Your task to perform on an android device: choose inbox layout in the gmail app Image 0: 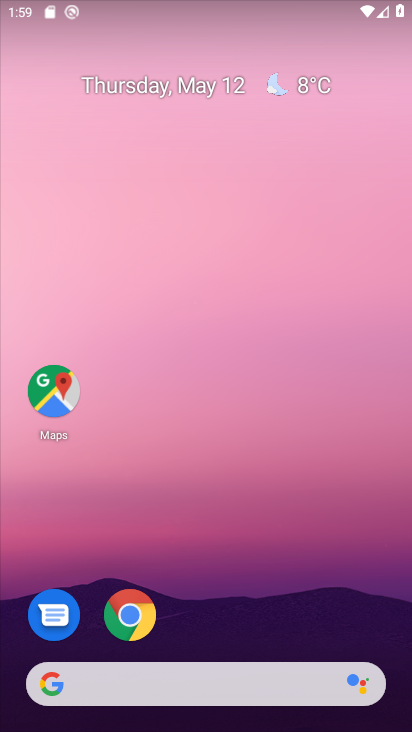
Step 0: drag from (208, 647) to (345, 80)
Your task to perform on an android device: choose inbox layout in the gmail app Image 1: 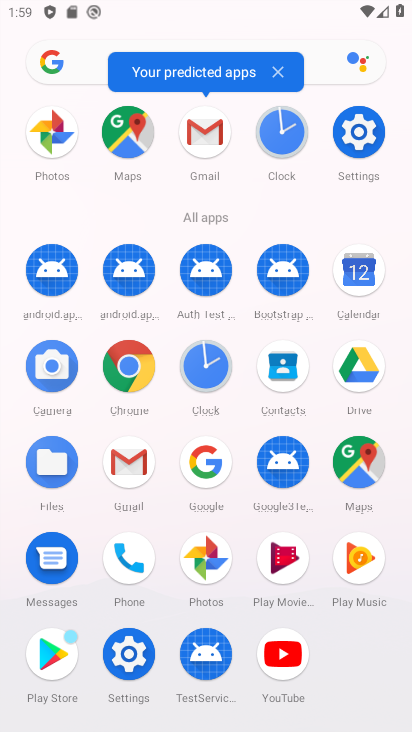
Step 1: click (132, 479)
Your task to perform on an android device: choose inbox layout in the gmail app Image 2: 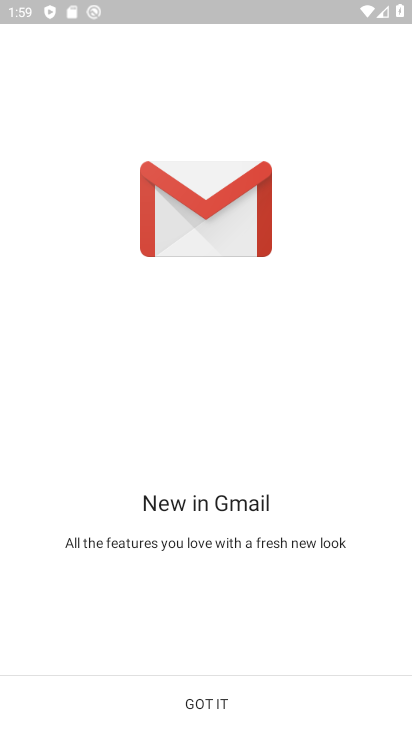
Step 2: click (234, 697)
Your task to perform on an android device: choose inbox layout in the gmail app Image 3: 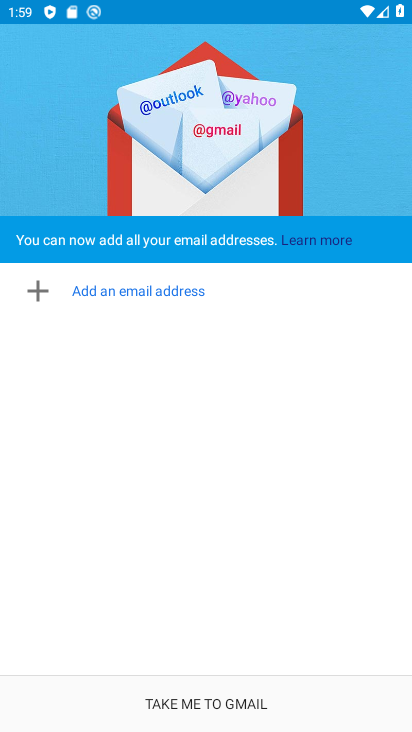
Step 3: click (222, 703)
Your task to perform on an android device: choose inbox layout in the gmail app Image 4: 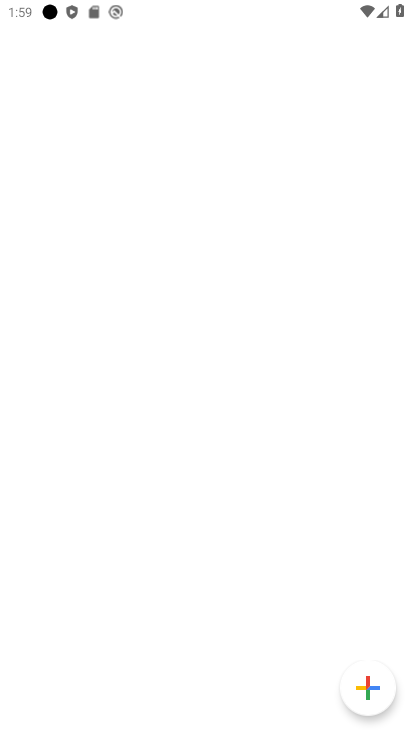
Step 4: click (222, 703)
Your task to perform on an android device: choose inbox layout in the gmail app Image 5: 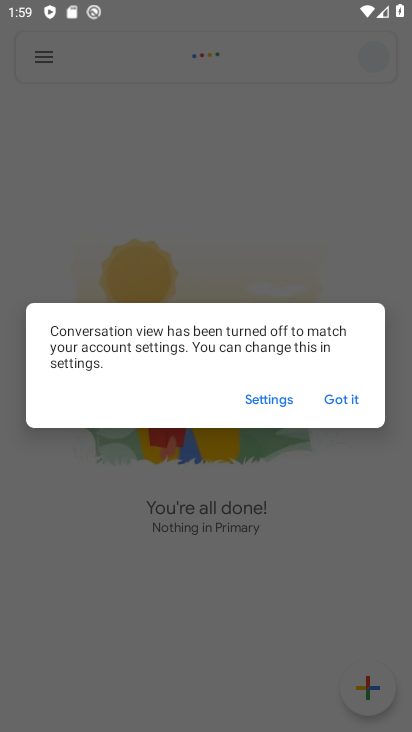
Step 5: click (345, 392)
Your task to perform on an android device: choose inbox layout in the gmail app Image 6: 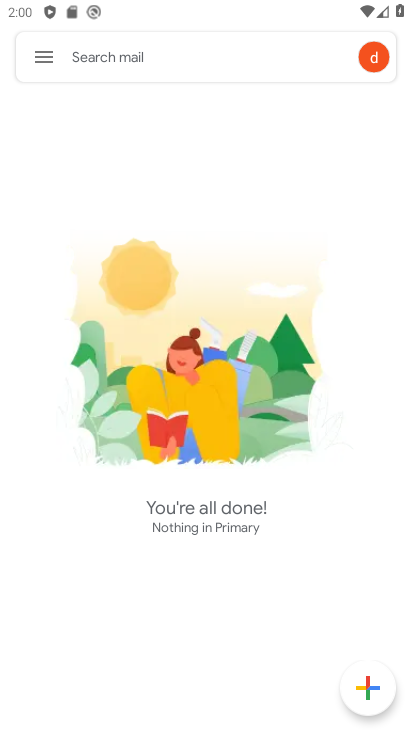
Step 6: click (30, 58)
Your task to perform on an android device: choose inbox layout in the gmail app Image 7: 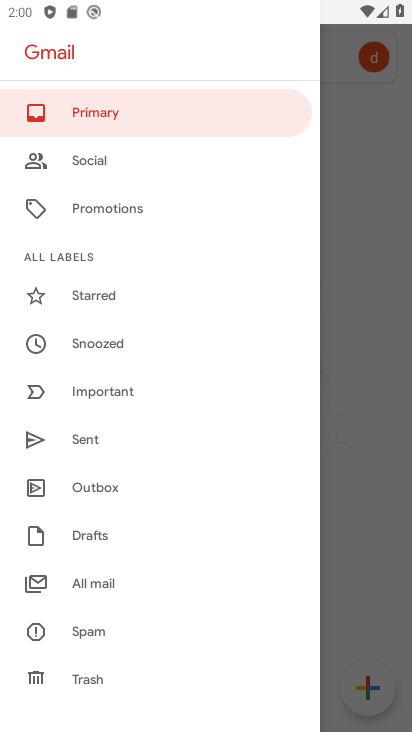
Step 7: drag from (206, 653) to (268, 271)
Your task to perform on an android device: choose inbox layout in the gmail app Image 8: 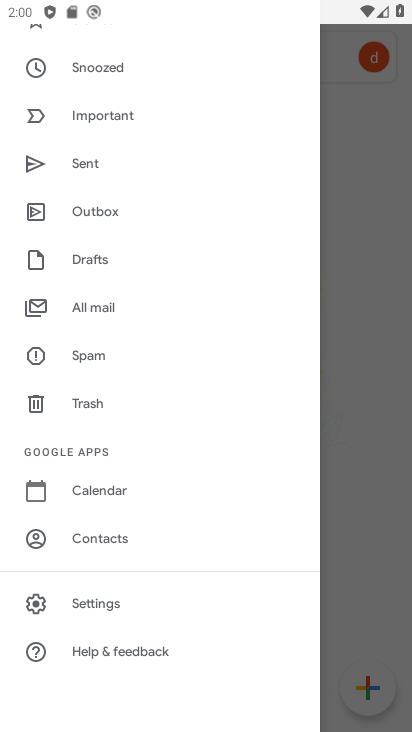
Step 8: click (133, 613)
Your task to perform on an android device: choose inbox layout in the gmail app Image 9: 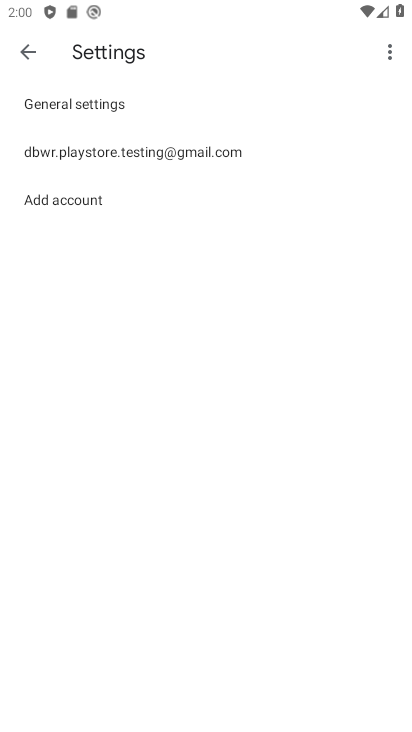
Step 9: click (200, 160)
Your task to perform on an android device: choose inbox layout in the gmail app Image 10: 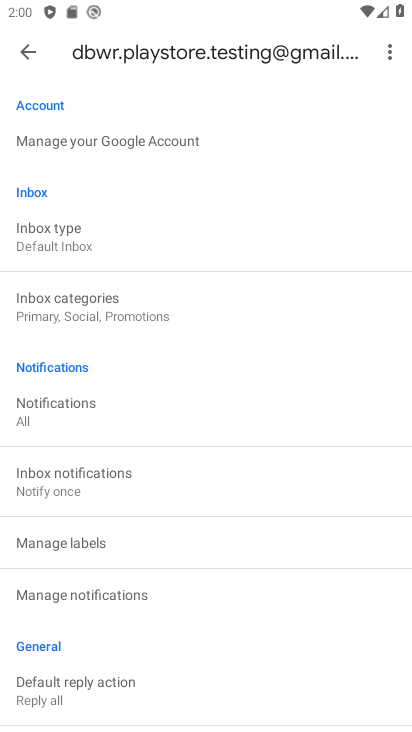
Step 10: click (194, 234)
Your task to perform on an android device: choose inbox layout in the gmail app Image 11: 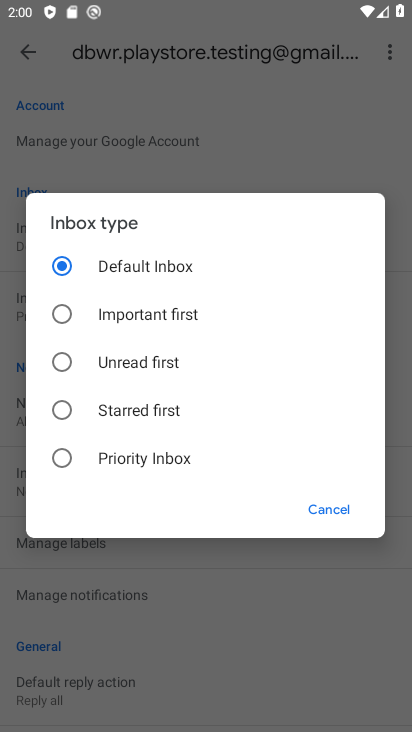
Step 11: click (179, 411)
Your task to perform on an android device: choose inbox layout in the gmail app Image 12: 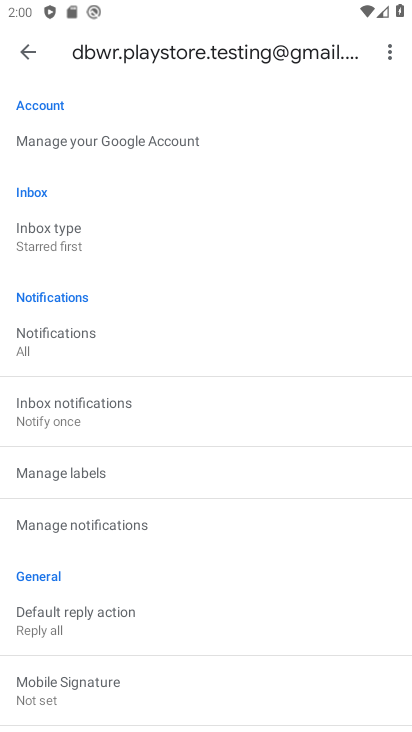
Step 12: task complete